Your task to perform on an android device: move an email to a new category in the gmail app Image 0: 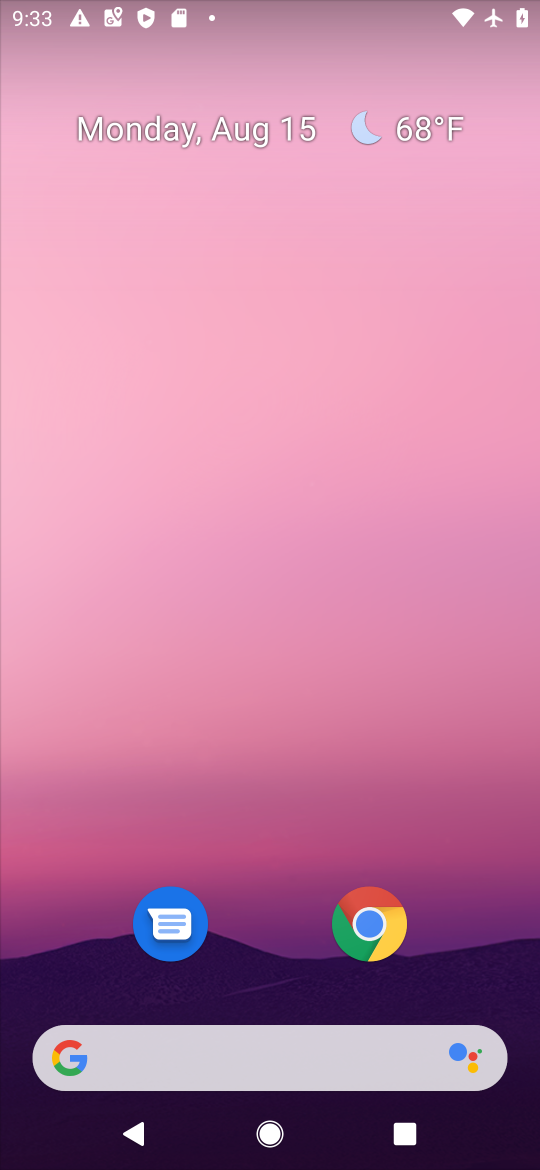
Step 0: drag from (515, 981) to (435, 169)
Your task to perform on an android device: move an email to a new category in the gmail app Image 1: 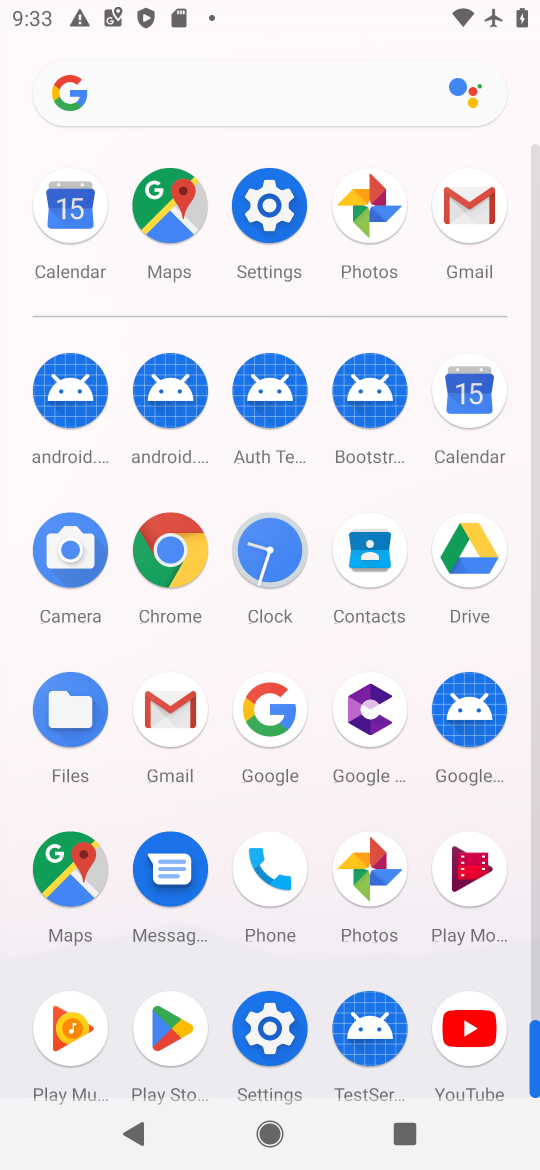
Step 1: click (164, 712)
Your task to perform on an android device: move an email to a new category in the gmail app Image 2: 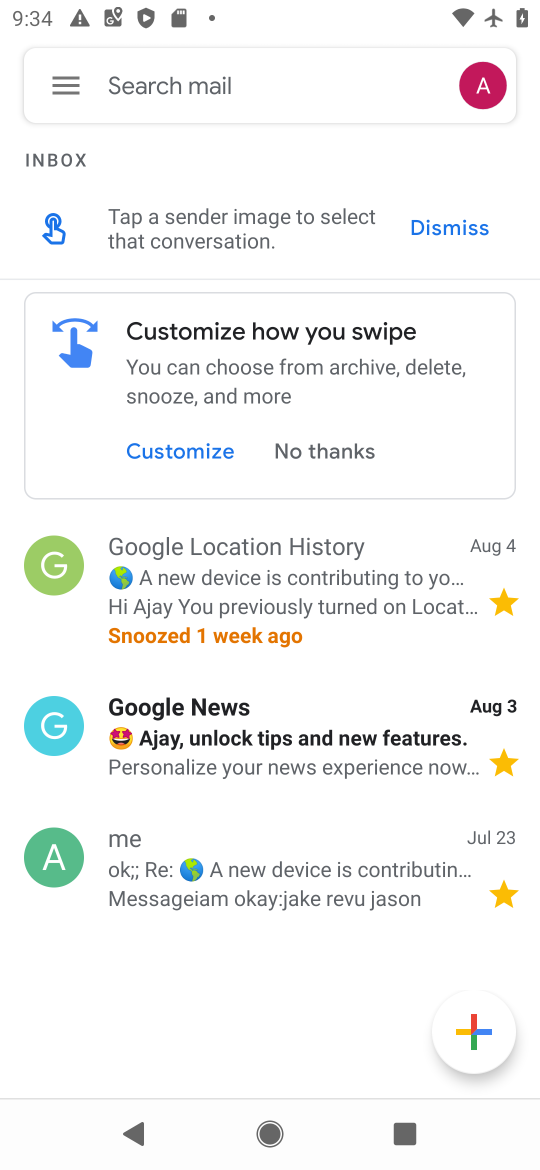
Step 2: click (306, 879)
Your task to perform on an android device: move an email to a new category in the gmail app Image 3: 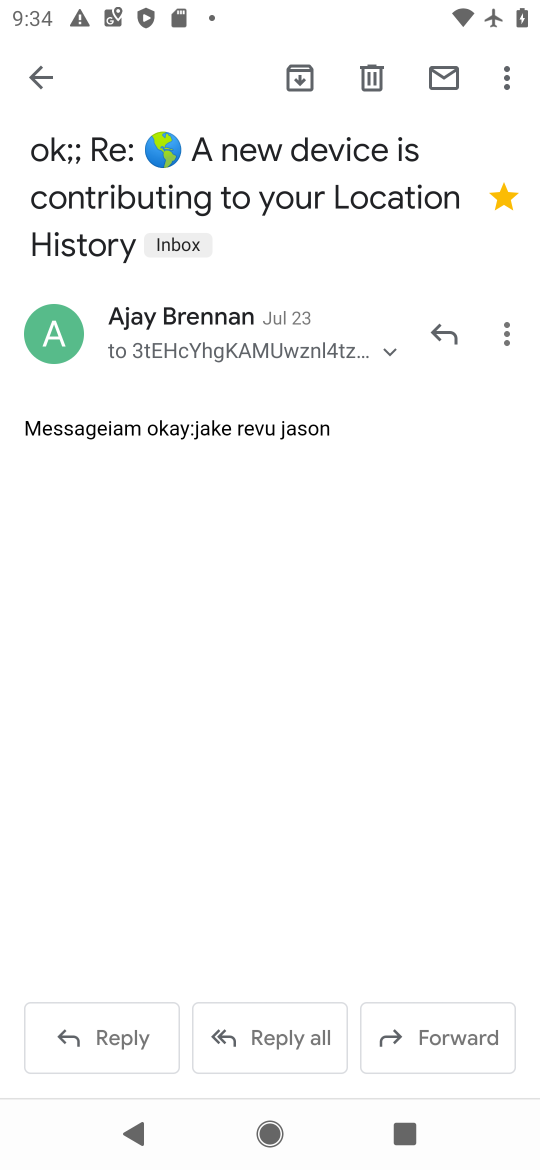
Step 3: click (505, 89)
Your task to perform on an android device: move an email to a new category in the gmail app Image 4: 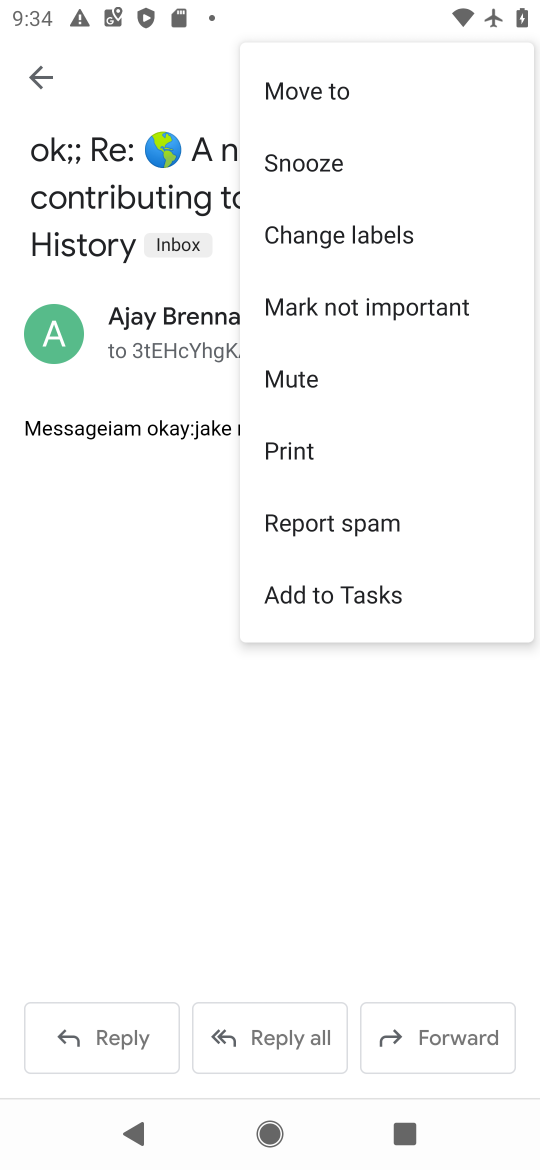
Step 4: click (313, 88)
Your task to perform on an android device: move an email to a new category in the gmail app Image 5: 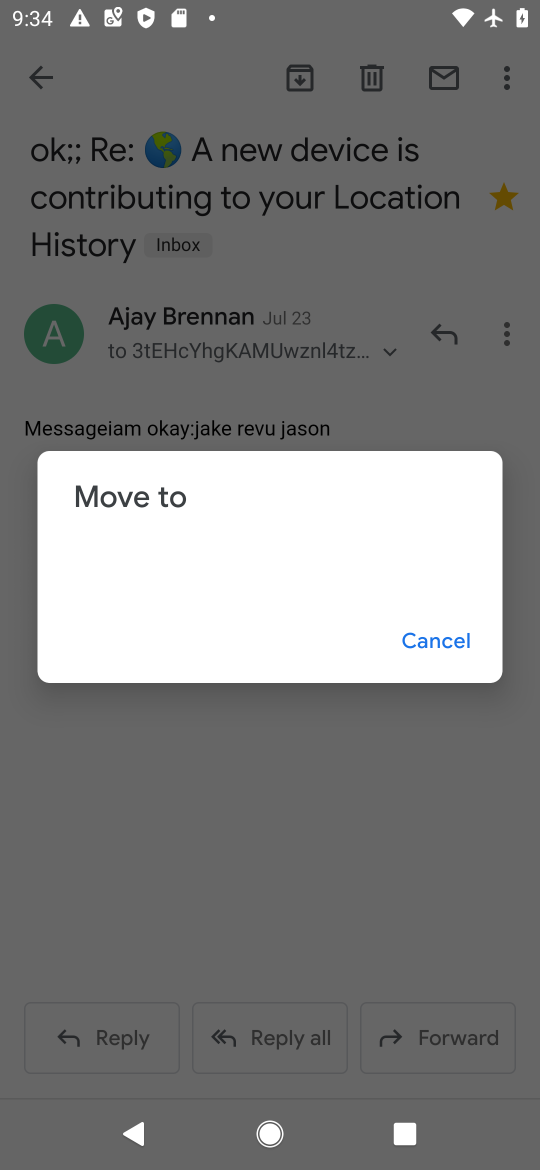
Step 5: task complete